Your task to perform on an android device: Open CNN.com Image 0: 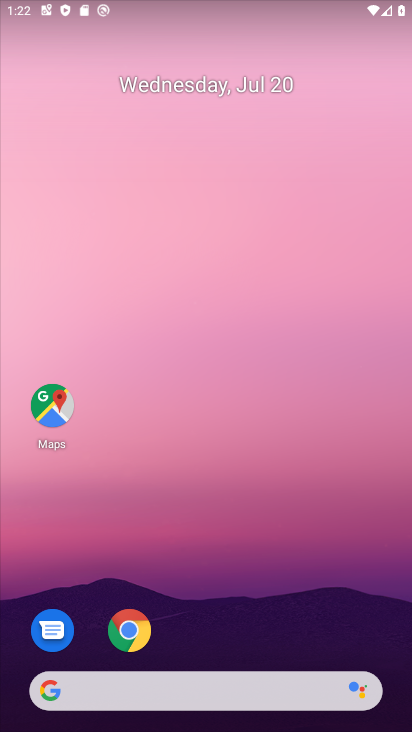
Step 0: drag from (291, 122) to (294, 78)
Your task to perform on an android device: Open CNN.com Image 1: 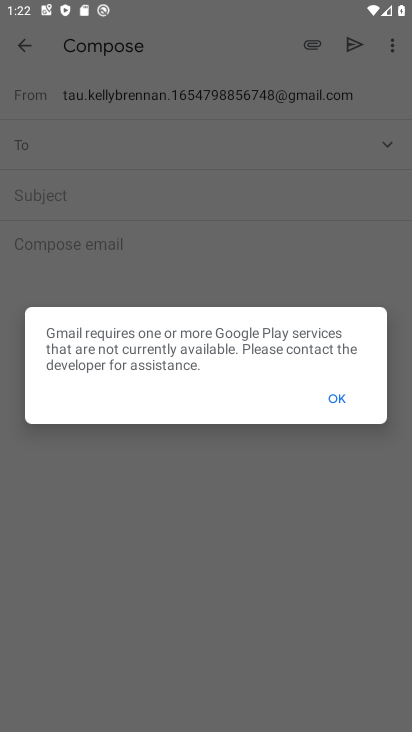
Step 1: press home button
Your task to perform on an android device: Open CNN.com Image 2: 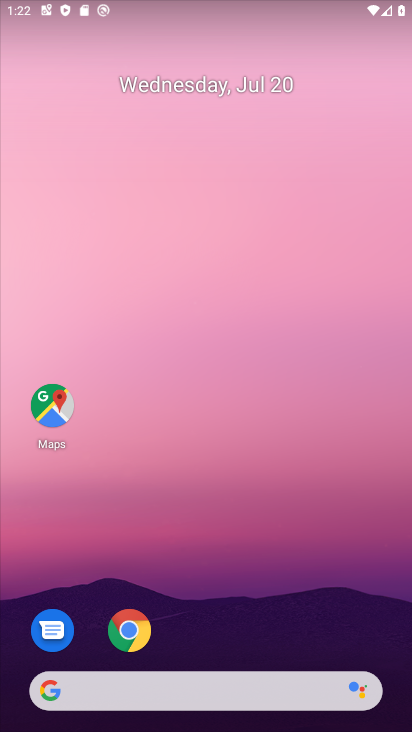
Step 2: drag from (238, 599) to (241, 67)
Your task to perform on an android device: Open CNN.com Image 3: 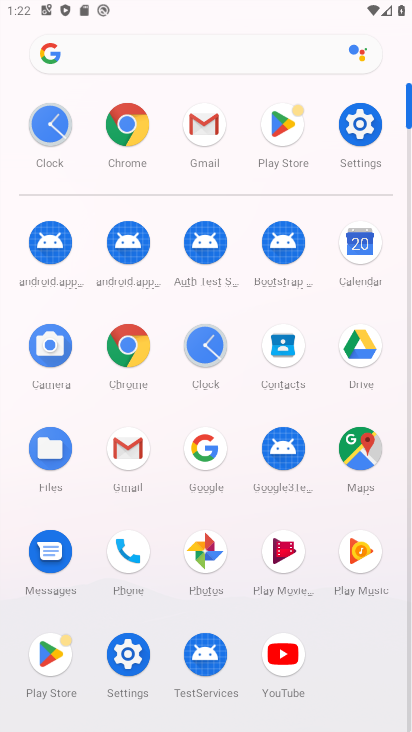
Step 3: click (138, 122)
Your task to perform on an android device: Open CNN.com Image 4: 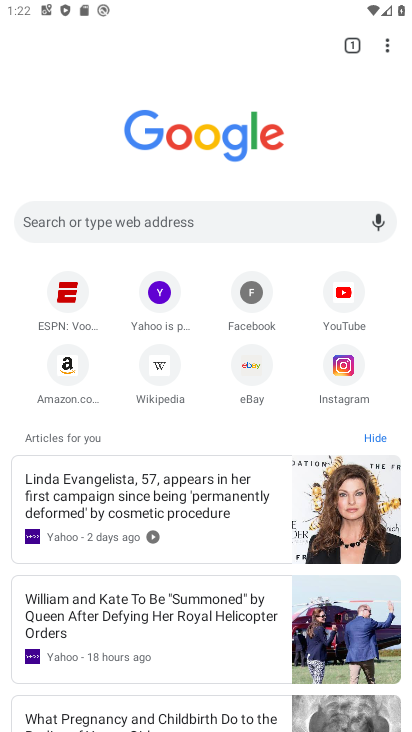
Step 4: click (185, 217)
Your task to perform on an android device: Open CNN.com Image 5: 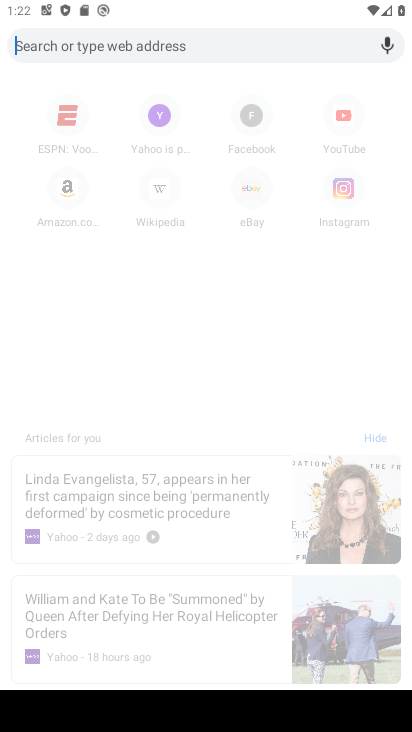
Step 5: type "cnn.com"
Your task to perform on an android device: Open CNN.com Image 6: 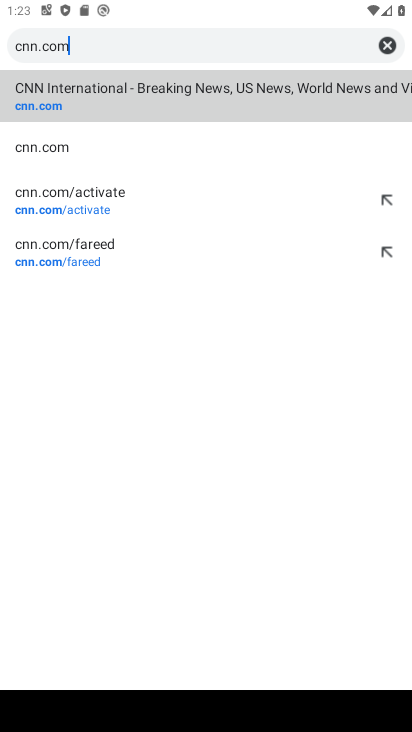
Step 6: click (130, 97)
Your task to perform on an android device: Open CNN.com Image 7: 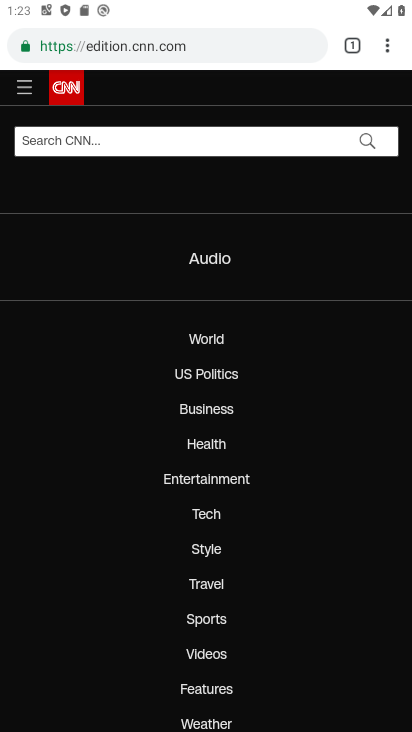
Step 7: task complete